Your task to perform on an android device: turn off notifications in google photos Image 0: 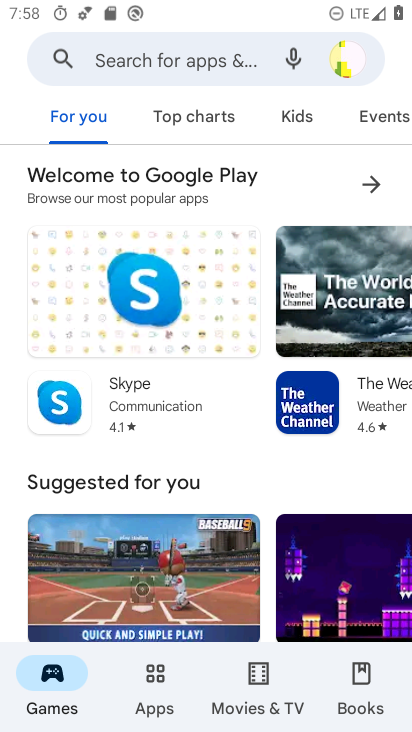
Step 0: press home button
Your task to perform on an android device: turn off notifications in google photos Image 1: 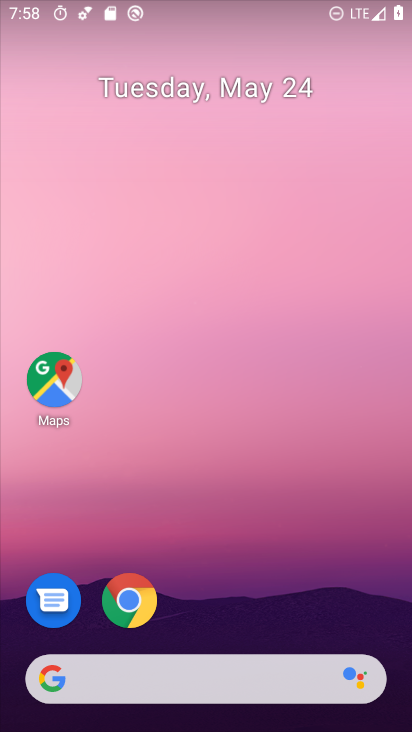
Step 1: drag from (224, 504) to (224, 54)
Your task to perform on an android device: turn off notifications in google photos Image 2: 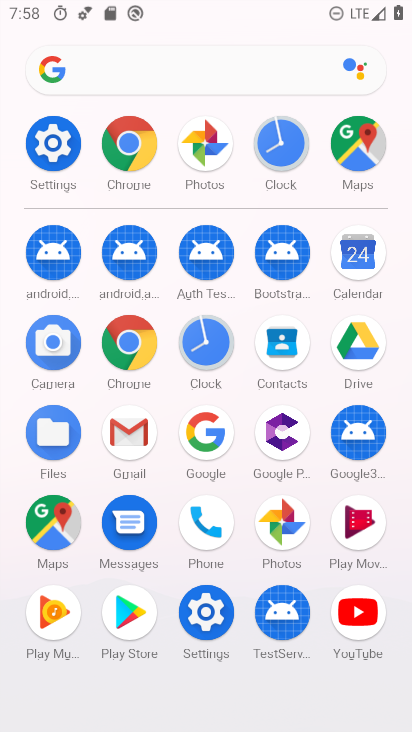
Step 2: click (290, 523)
Your task to perform on an android device: turn off notifications in google photos Image 3: 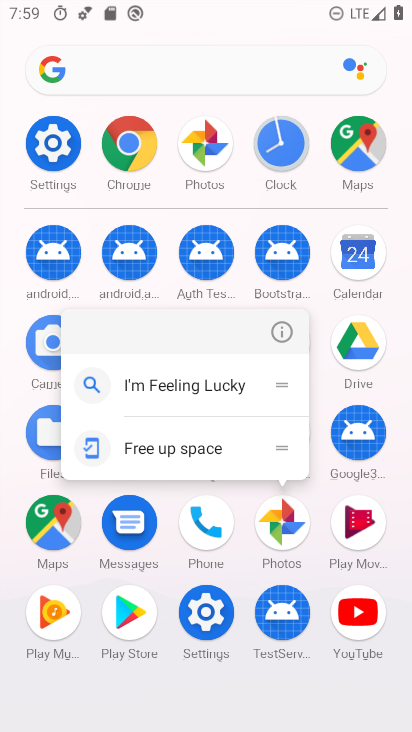
Step 3: click (281, 331)
Your task to perform on an android device: turn off notifications in google photos Image 4: 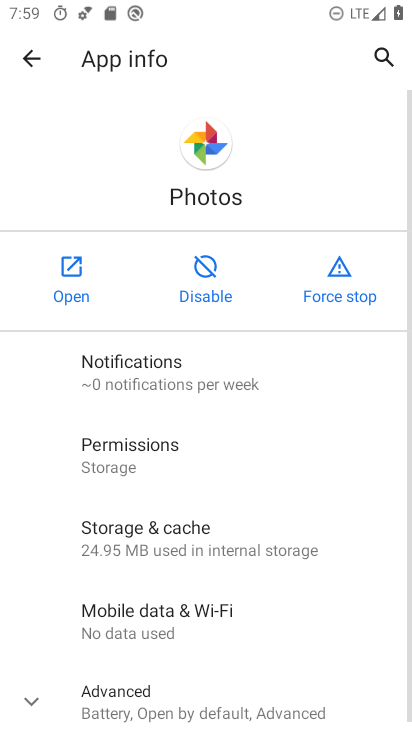
Step 4: click (126, 376)
Your task to perform on an android device: turn off notifications in google photos Image 5: 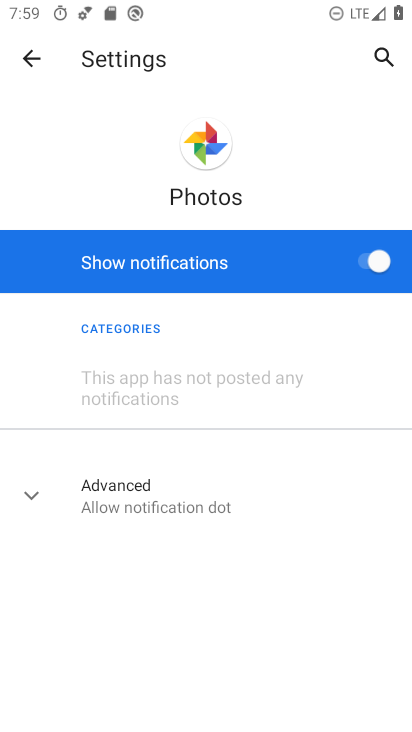
Step 5: click (376, 262)
Your task to perform on an android device: turn off notifications in google photos Image 6: 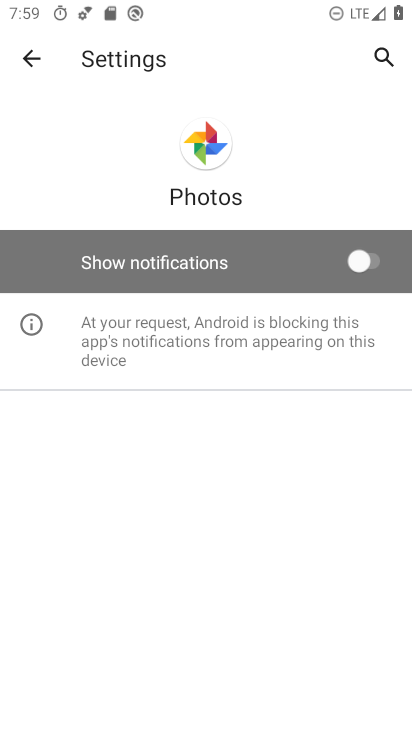
Step 6: task complete